Your task to perform on an android device: change the upload size in google photos Image 0: 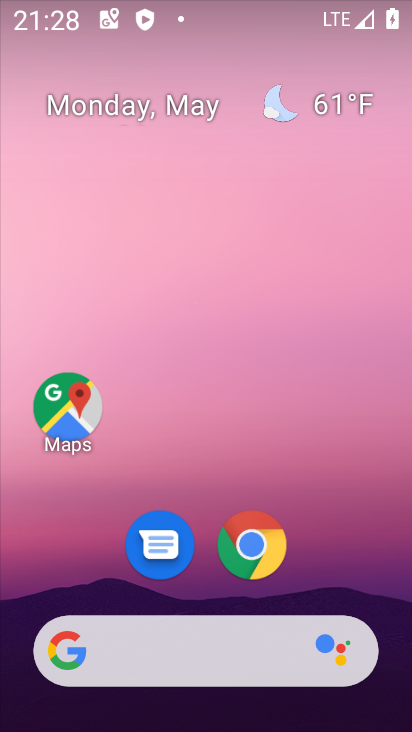
Step 0: drag from (201, 635) to (147, 16)
Your task to perform on an android device: change the upload size in google photos Image 1: 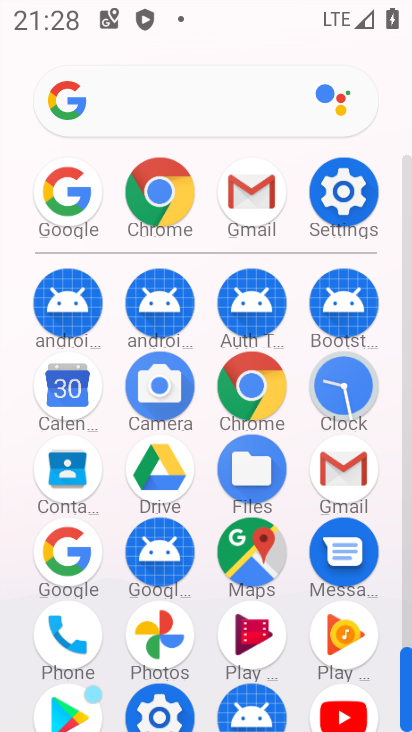
Step 1: click (159, 636)
Your task to perform on an android device: change the upload size in google photos Image 2: 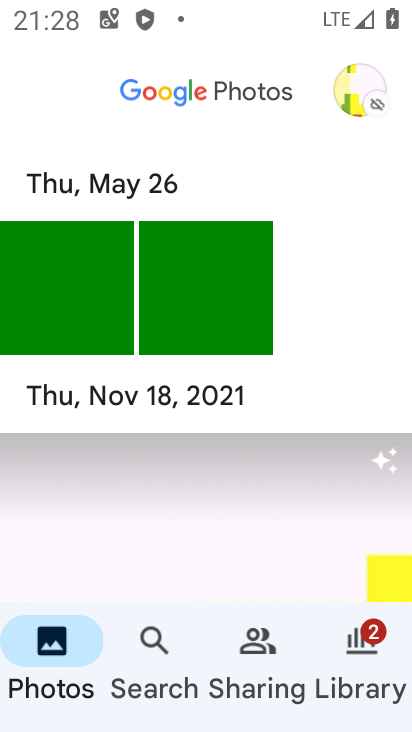
Step 2: click (350, 100)
Your task to perform on an android device: change the upload size in google photos Image 3: 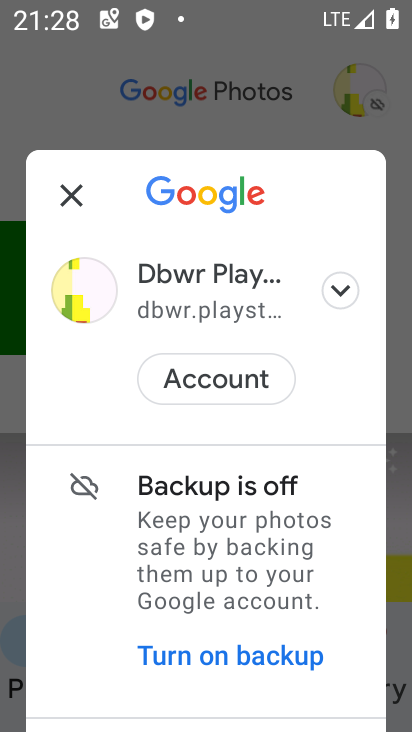
Step 3: drag from (142, 606) to (146, 19)
Your task to perform on an android device: change the upload size in google photos Image 4: 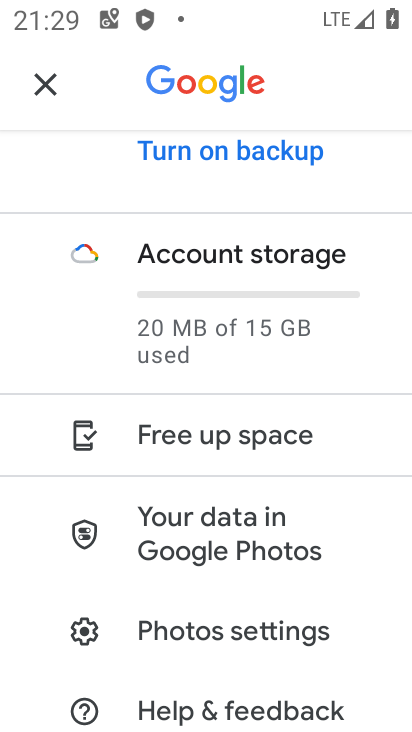
Step 4: click (214, 629)
Your task to perform on an android device: change the upload size in google photos Image 5: 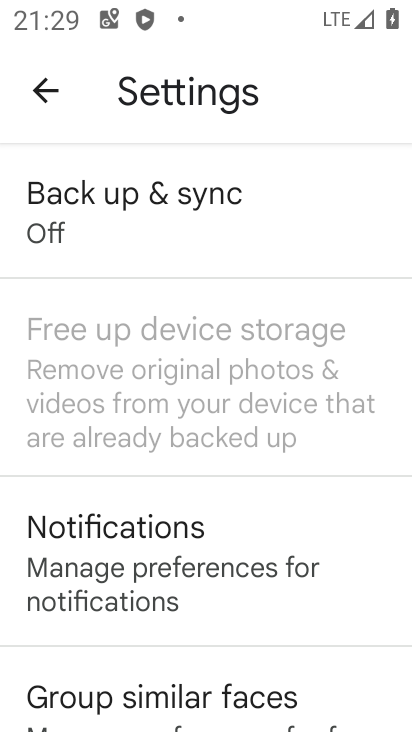
Step 5: drag from (207, 646) to (179, 51)
Your task to perform on an android device: change the upload size in google photos Image 6: 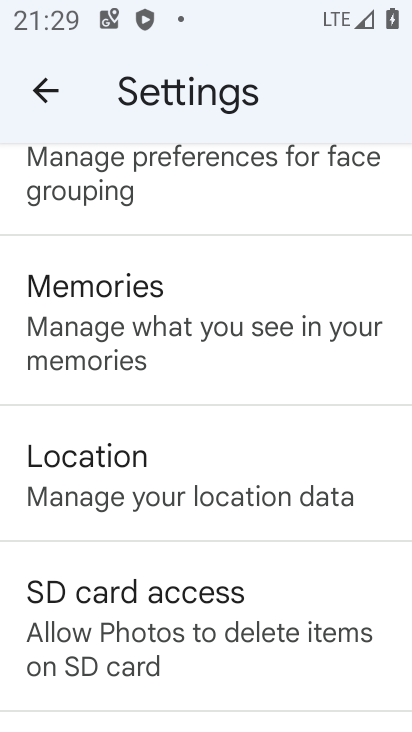
Step 6: drag from (170, 330) to (96, 679)
Your task to perform on an android device: change the upload size in google photos Image 7: 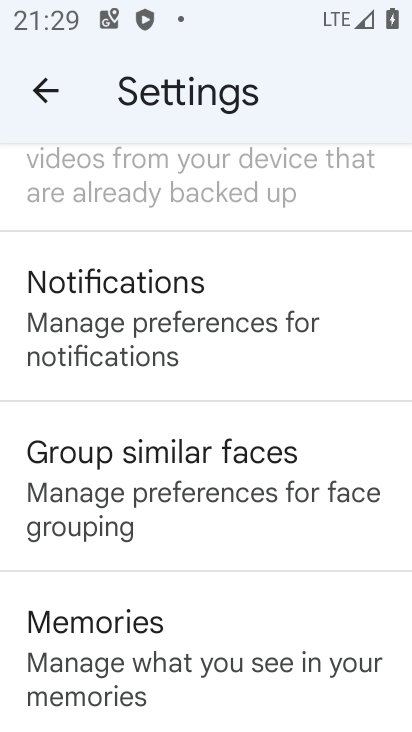
Step 7: drag from (190, 304) to (135, 665)
Your task to perform on an android device: change the upload size in google photos Image 8: 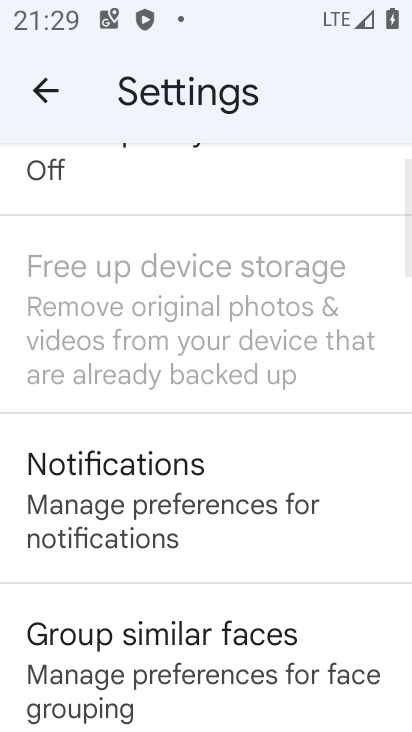
Step 8: click (150, 218)
Your task to perform on an android device: change the upload size in google photos Image 9: 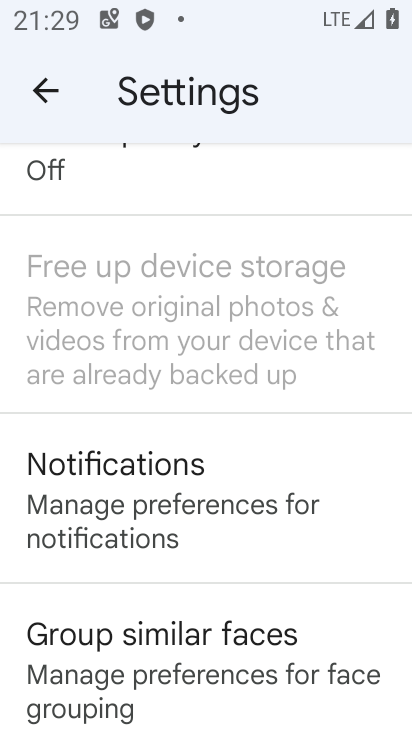
Step 9: drag from (172, 354) to (195, 701)
Your task to perform on an android device: change the upload size in google photos Image 10: 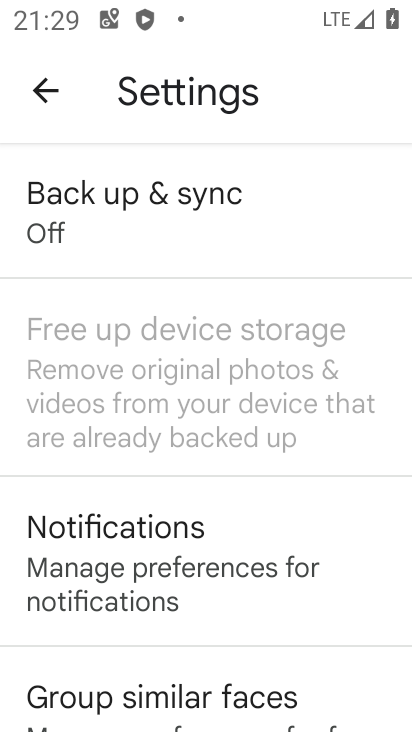
Step 10: click (151, 242)
Your task to perform on an android device: change the upload size in google photos Image 11: 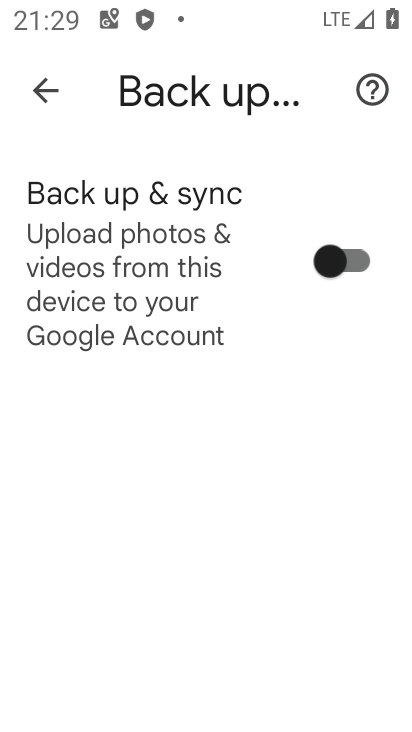
Step 11: click (344, 255)
Your task to perform on an android device: change the upload size in google photos Image 12: 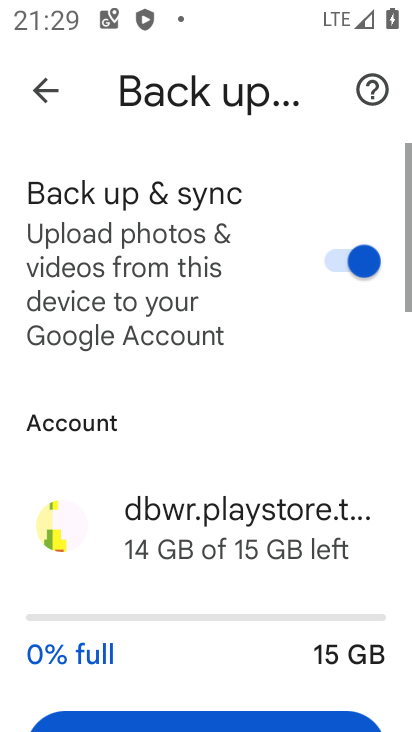
Step 12: drag from (183, 503) to (151, 15)
Your task to perform on an android device: change the upload size in google photos Image 13: 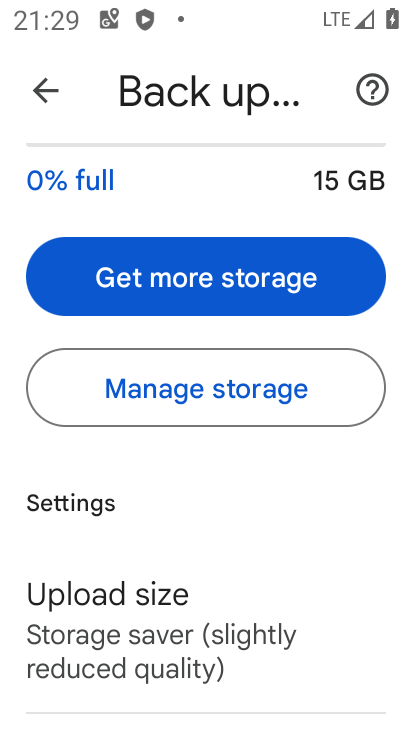
Step 13: click (190, 615)
Your task to perform on an android device: change the upload size in google photos Image 14: 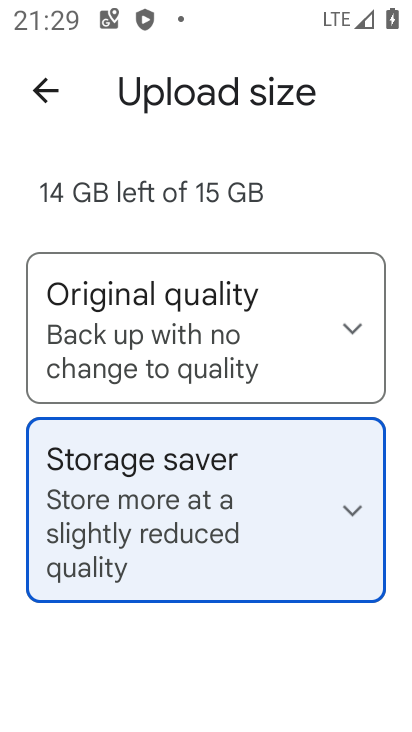
Step 14: click (207, 349)
Your task to perform on an android device: change the upload size in google photos Image 15: 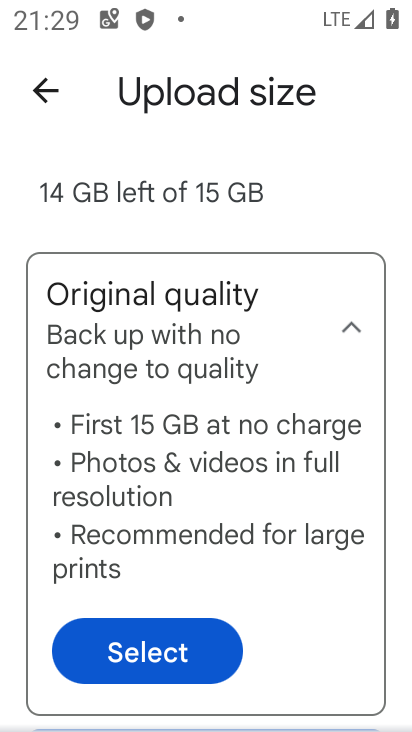
Step 15: click (135, 652)
Your task to perform on an android device: change the upload size in google photos Image 16: 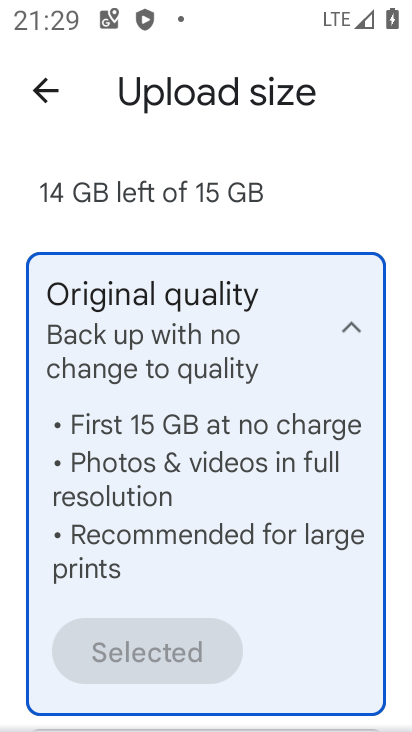
Step 16: task complete